Your task to perform on an android device: What's the weather? Image 0: 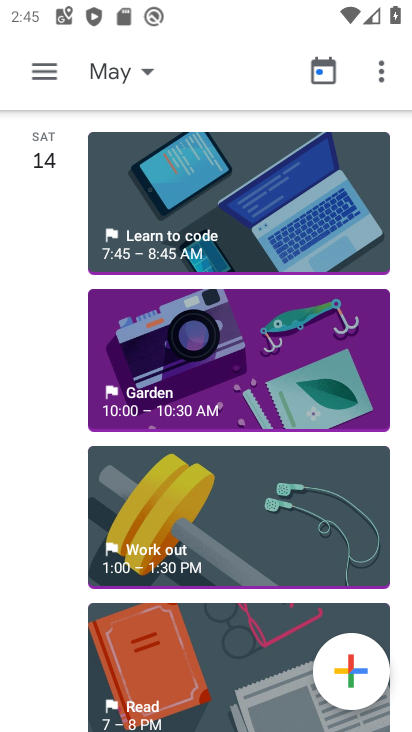
Step 0: press home button
Your task to perform on an android device: What's the weather? Image 1: 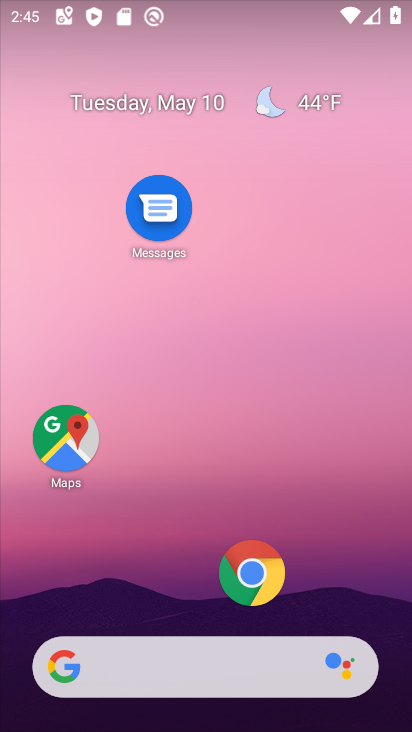
Step 1: drag from (182, 593) to (241, 208)
Your task to perform on an android device: What's the weather? Image 2: 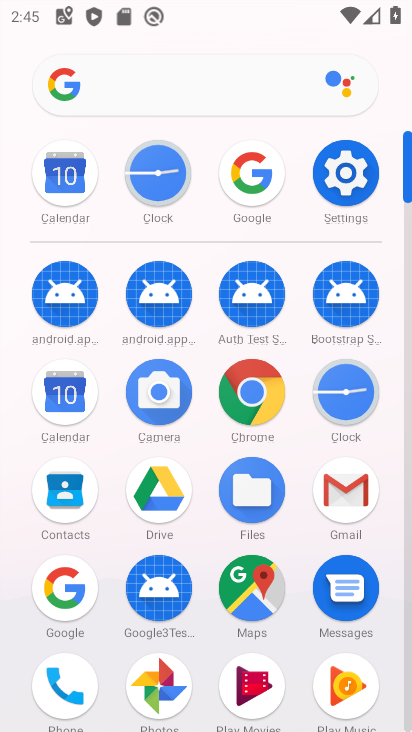
Step 2: click (341, 195)
Your task to perform on an android device: What's the weather? Image 3: 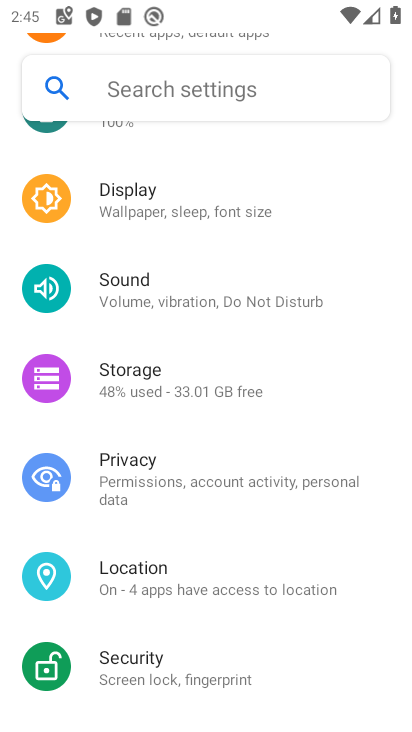
Step 3: press home button
Your task to perform on an android device: What's the weather? Image 4: 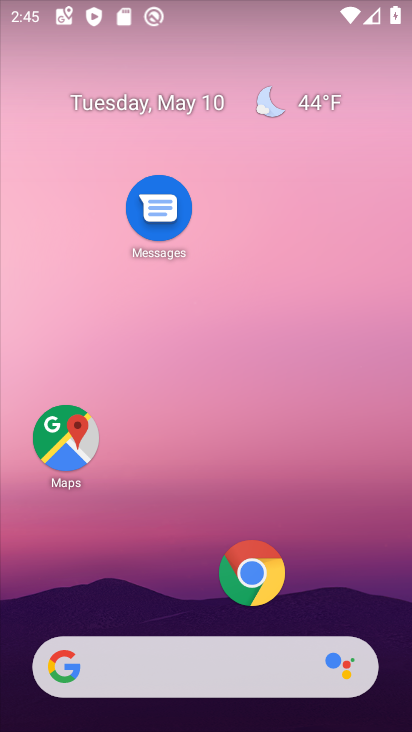
Step 4: drag from (202, 505) to (237, 201)
Your task to perform on an android device: What's the weather? Image 5: 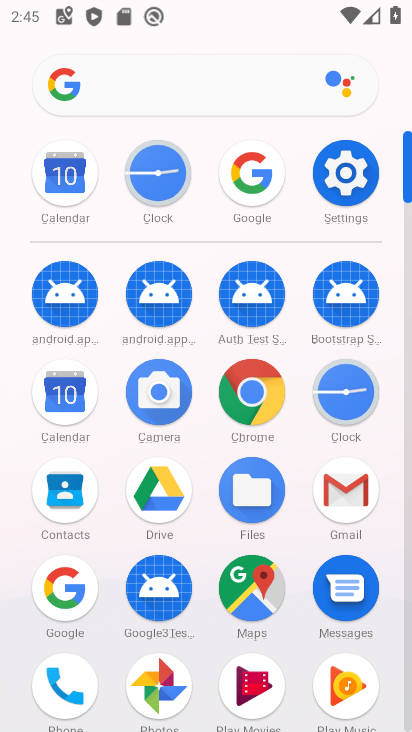
Step 5: click (56, 584)
Your task to perform on an android device: What's the weather? Image 6: 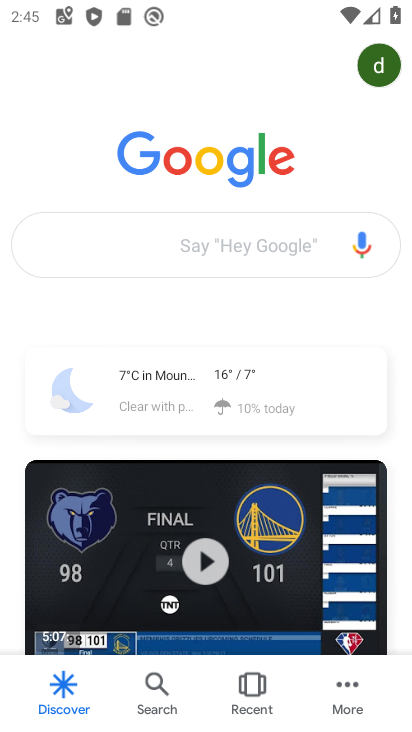
Step 6: click (173, 366)
Your task to perform on an android device: What's the weather? Image 7: 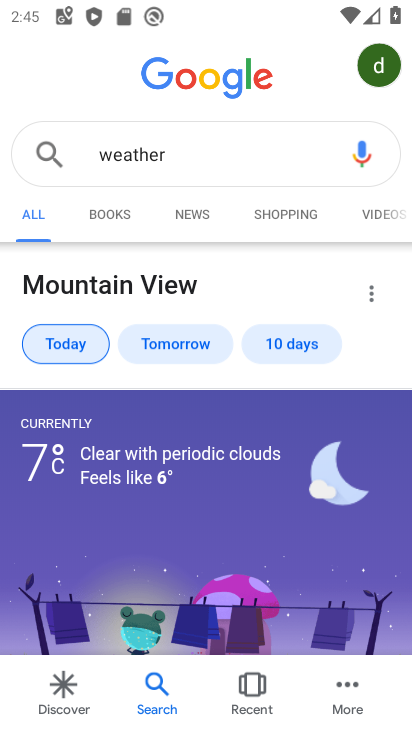
Step 7: task complete